Your task to perform on an android device: Go to Yahoo.com Image 0: 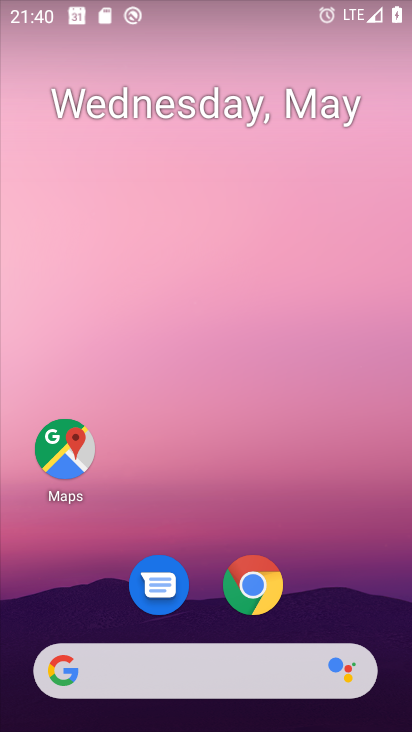
Step 0: click (202, 675)
Your task to perform on an android device: Go to Yahoo.com Image 1: 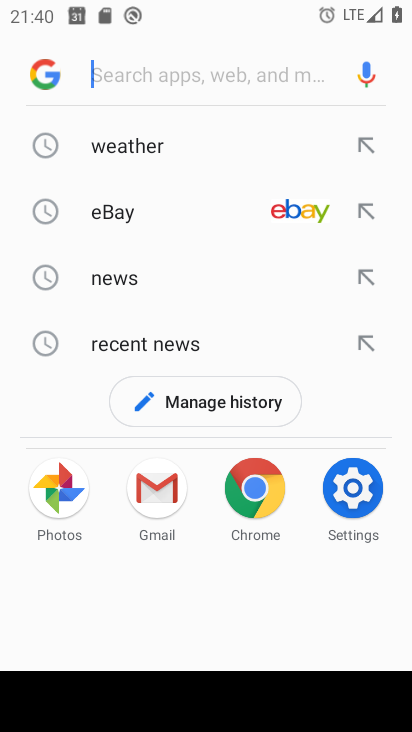
Step 1: type "yahoo.com"
Your task to perform on an android device: Go to Yahoo.com Image 2: 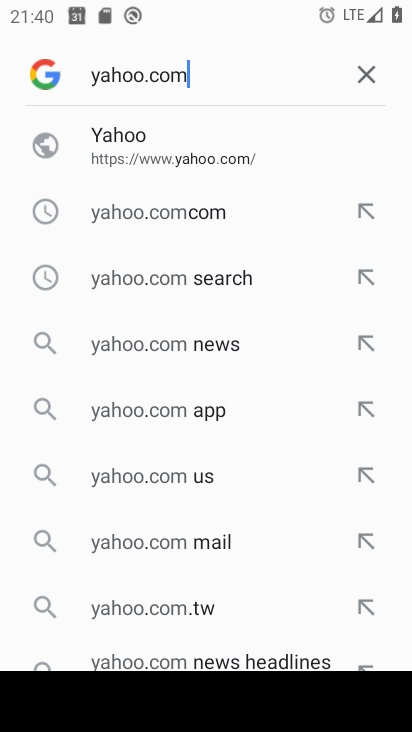
Step 2: click (133, 158)
Your task to perform on an android device: Go to Yahoo.com Image 3: 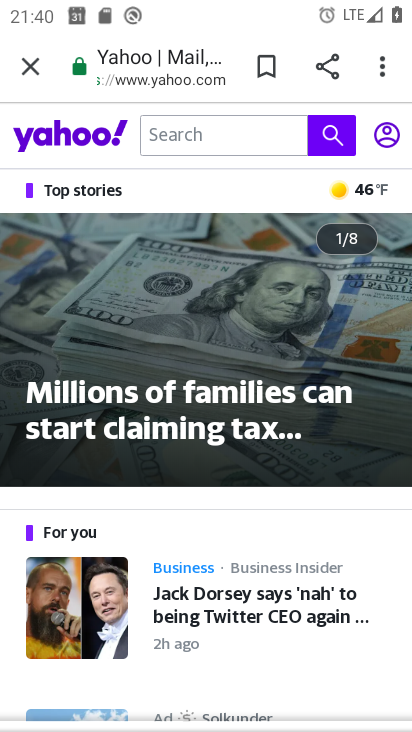
Step 3: task complete